Your task to perform on an android device: Do I have any events tomorrow? Image 0: 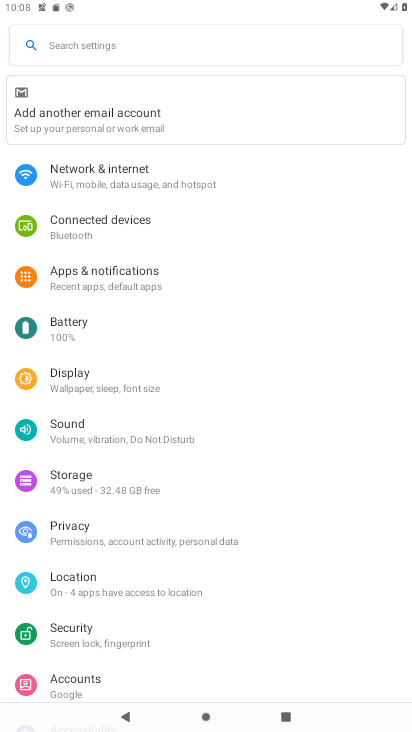
Step 0: press home button
Your task to perform on an android device: Do I have any events tomorrow? Image 1: 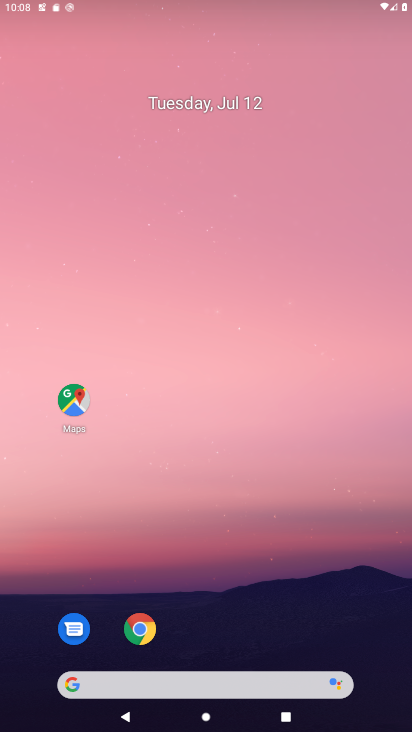
Step 1: drag from (243, 691) to (285, 35)
Your task to perform on an android device: Do I have any events tomorrow? Image 2: 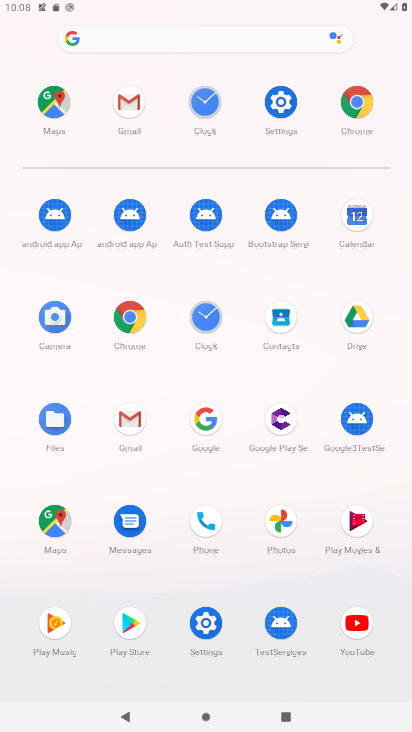
Step 2: click (356, 202)
Your task to perform on an android device: Do I have any events tomorrow? Image 3: 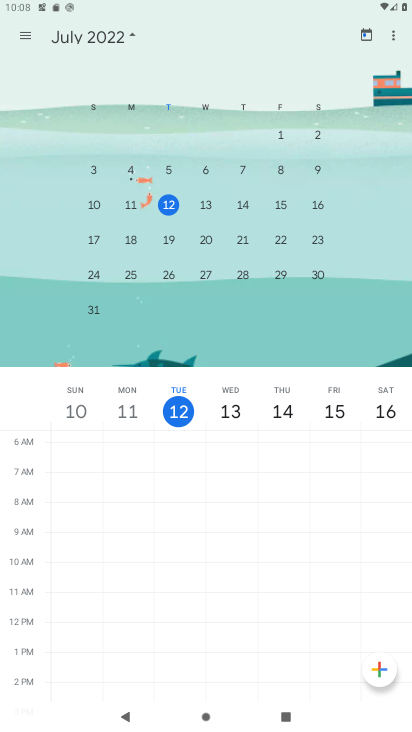
Step 3: click (205, 201)
Your task to perform on an android device: Do I have any events tomorrow? Image 4: 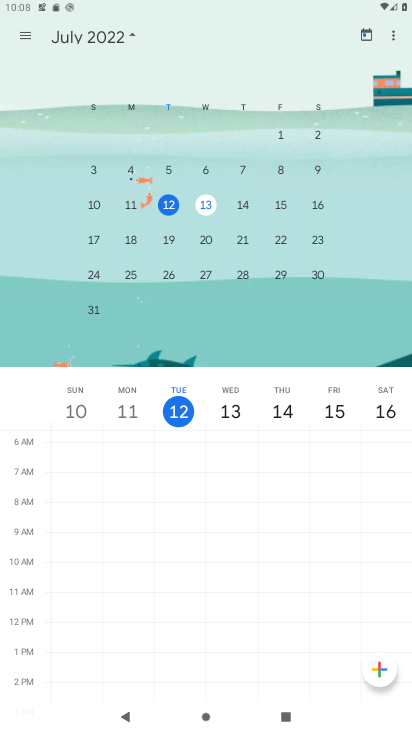
Step 4: click (235, 205)
Your task to perform on an android device: Do I have any events tomorrow? Image 5: 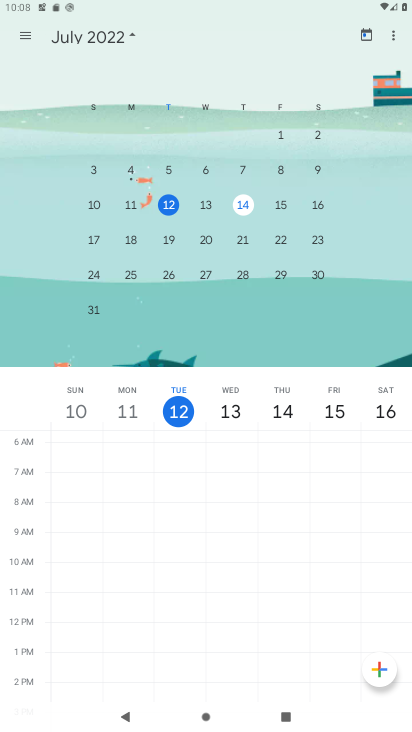
Step 5: task complete